Your task to perform on an android device: open app "Paramount+ | Peak Streaming" (install if not already installed) and go to login screen Image 0: 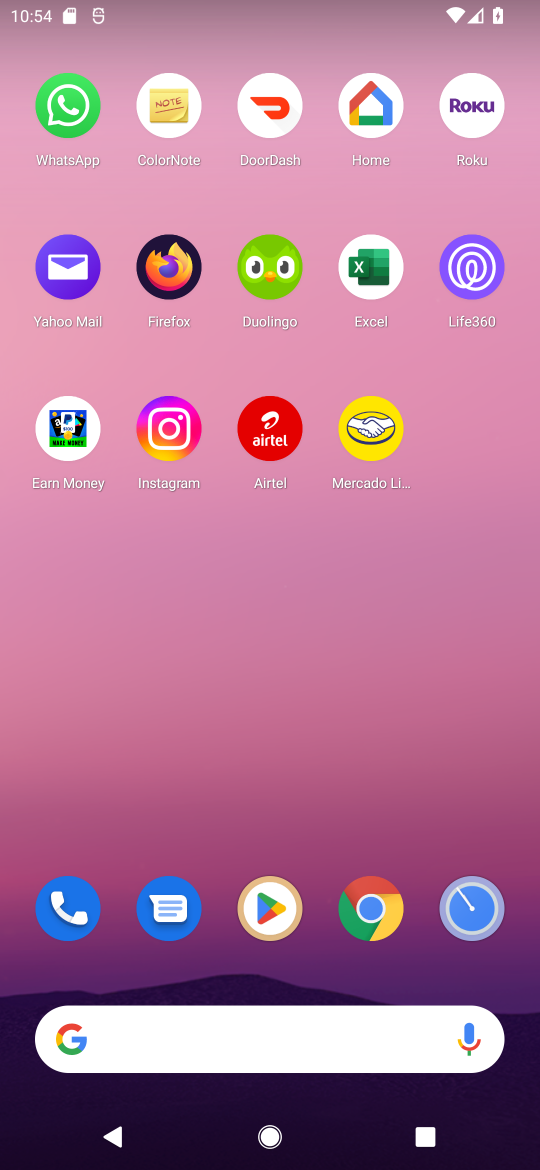
Step 0: click (287, 922)
Your task to perform on an android device: open app "Paramount+ | Peak Streaming" (install if not already installed) and go to login screen Image 1: 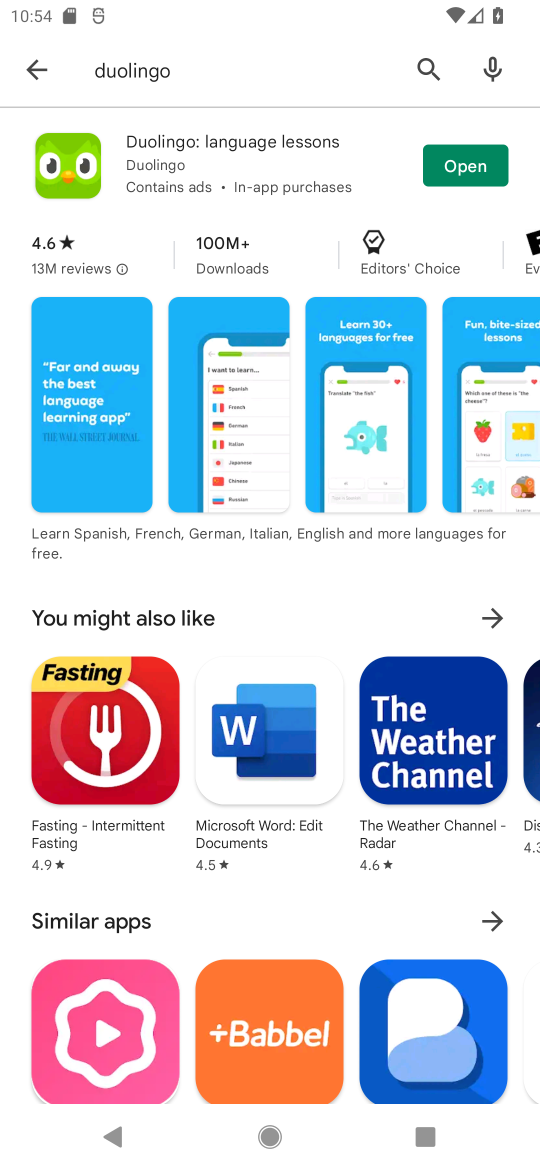
Step 1: click (29, 78)
Your task to perform on an android device: open app "Paramount+ | Peak Streaming" (install if not already installed) and go to login screen Image 2: 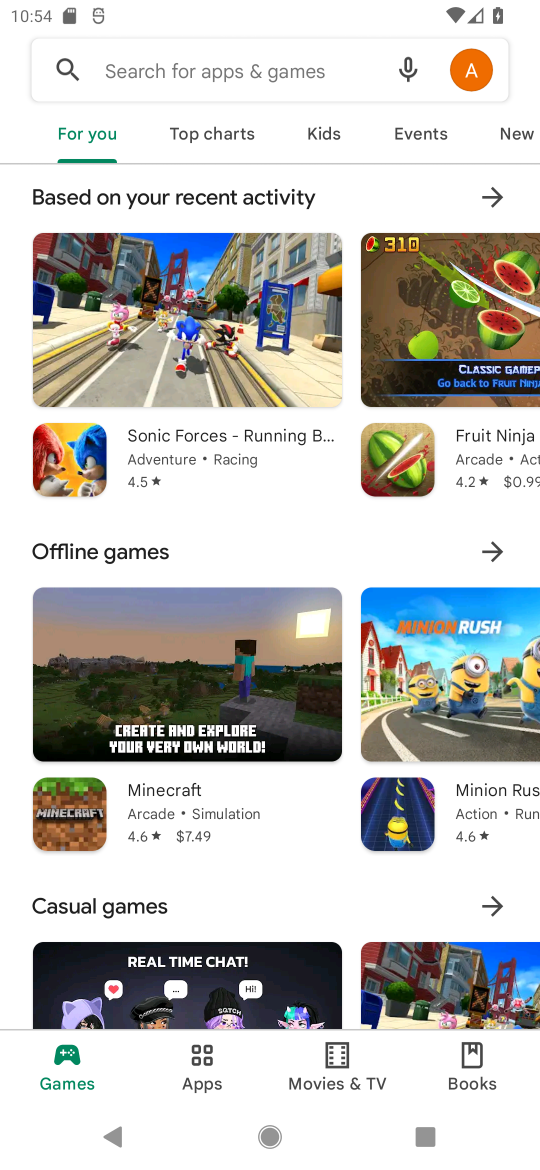
Step 2: click (245, 62)
Your task to perform on an android device: open app "Paramount+ | Peak Streaming" (install if not already installed) and go to login screen Image 3: 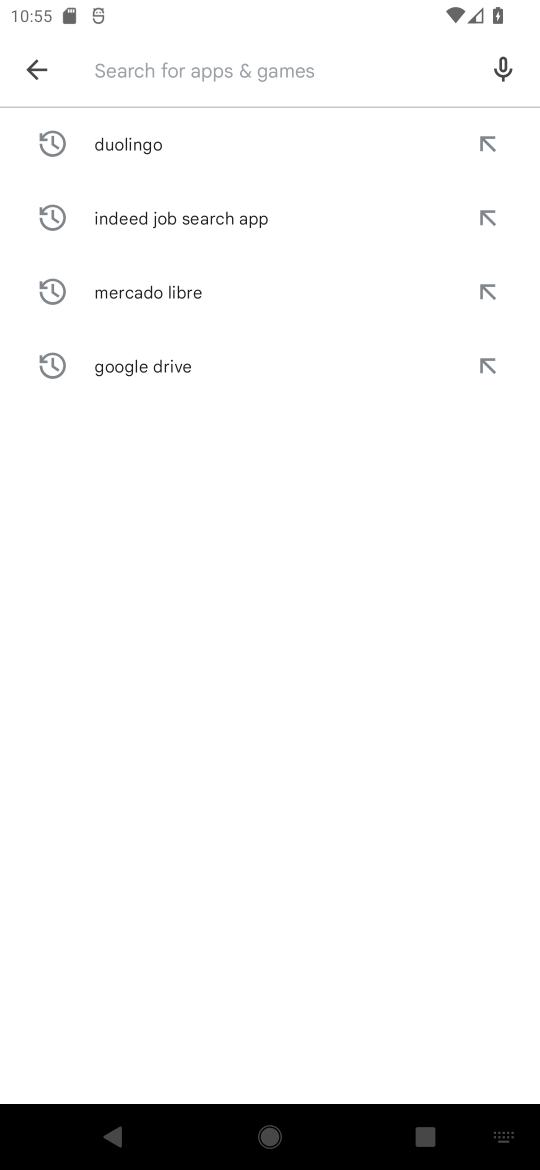
Step 3: type "Paramount+ | Peak Streaming"
Your task to perform on an android device: open app "Paramount+ | Peak Streaming" (install if not already installed) and go to login screen Image 4: 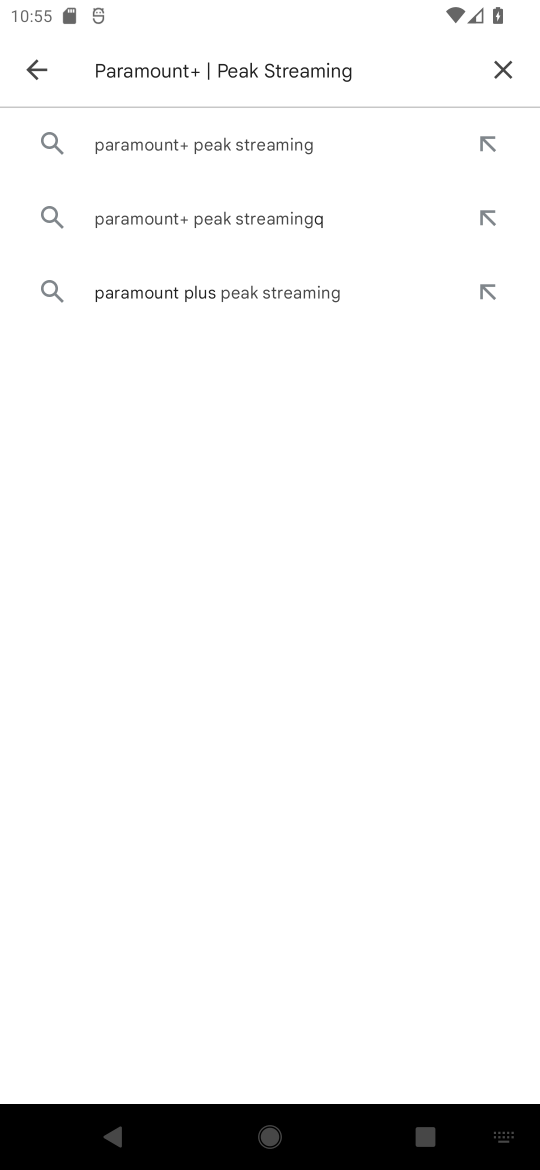
Step 4: click (263, 162)
Your task to perform on an android device: open app "Paramount+ | Peak Streaming" (install if not already installed) and go to login screen Image 5: 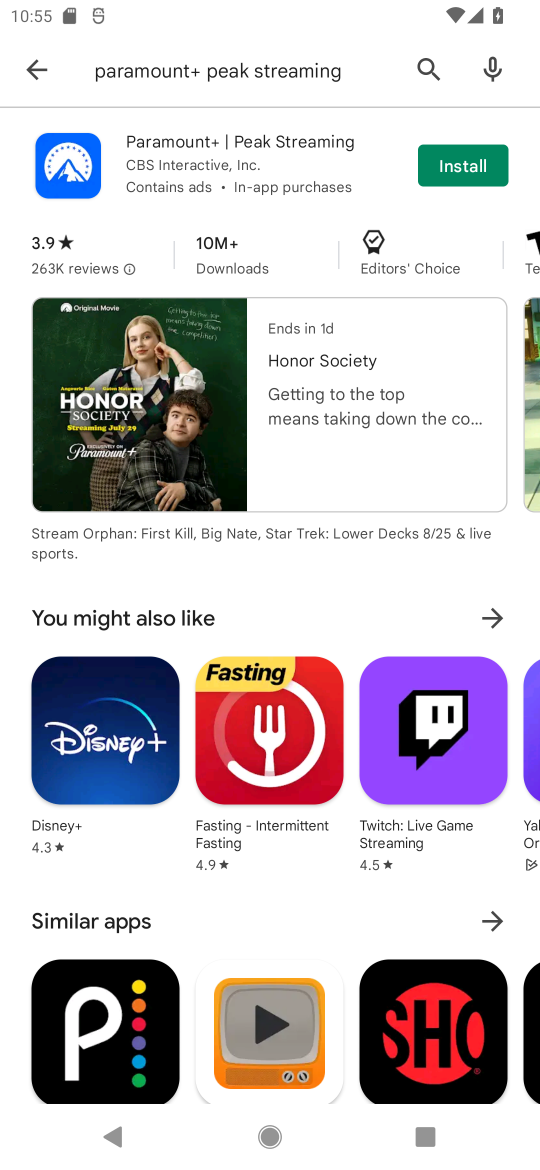
Step 5: click (493, 165)
Your task to perform on an android device: open app "Paramount+ | Peak Streaming" (install if not already installed) and go to login screen Image 6: 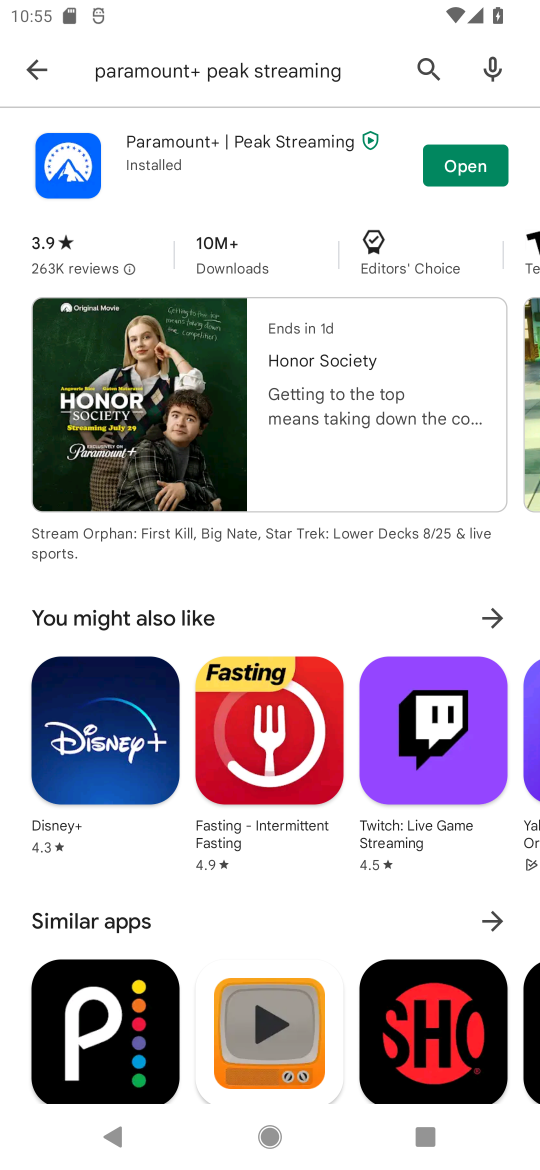
Step 6: click (493, 165)
Your task to perform on an android device: open app "Paramount+ | Peak Streaming" (install if not already installed) and go to login screen Image 7: 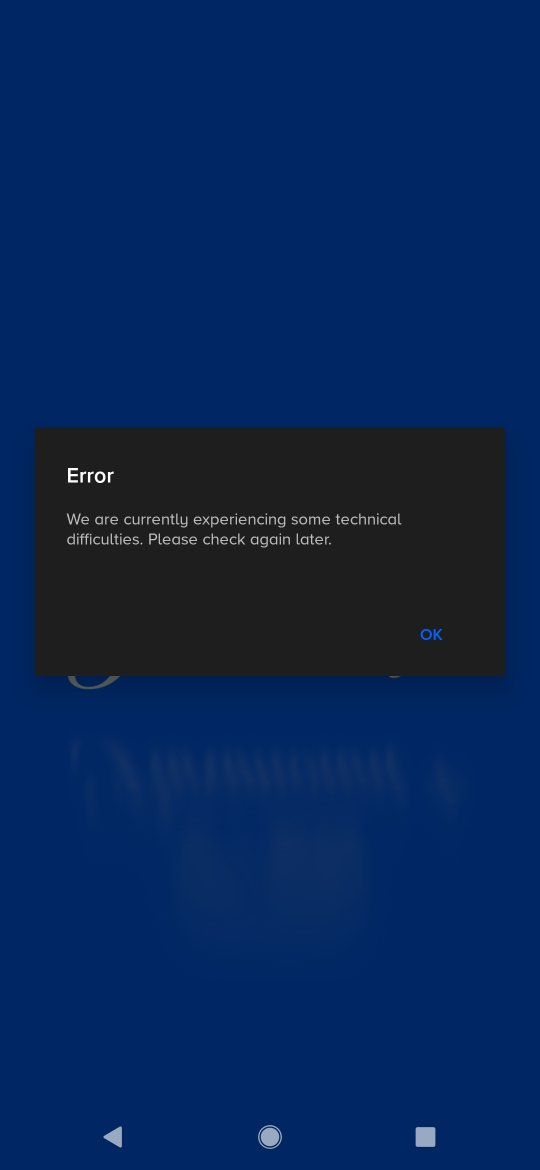
Step 7: click (423, 628)
Your task to perform on an android device: open app "Paramount+ | Peak Streaming" (install if not already installed) and go to login screen Image 8: 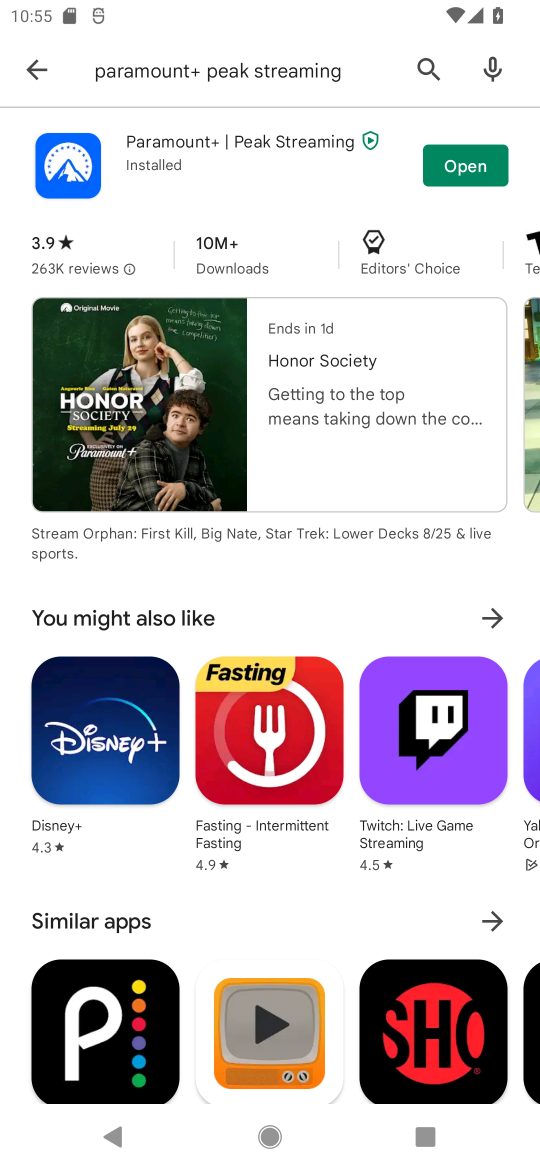
Step 8: task complete